Your task to perform on an android device: Open the map Image 0: 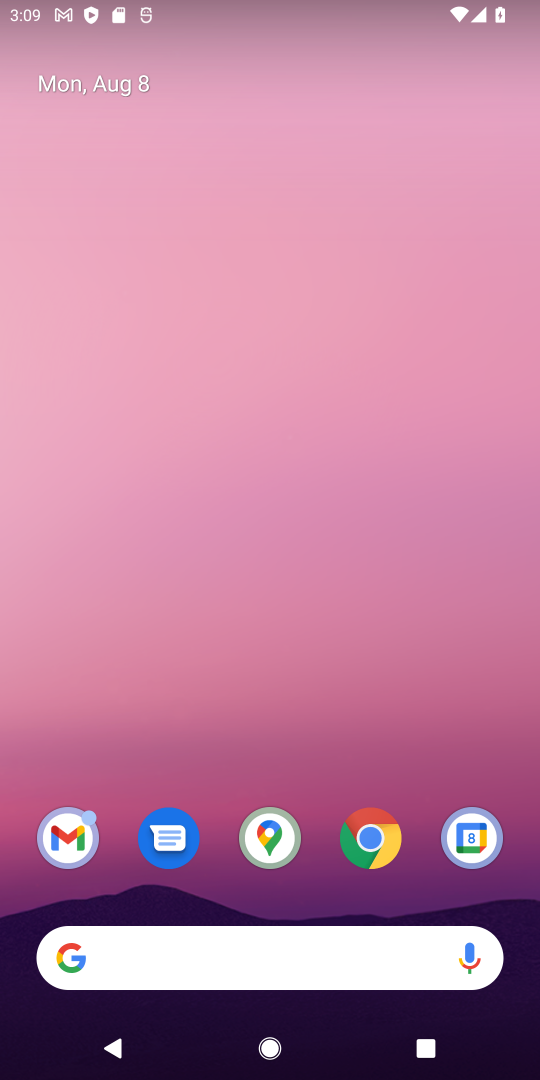
Step 0: click (269, 838)
Your task to perform on an android device: Open the map Image 1: 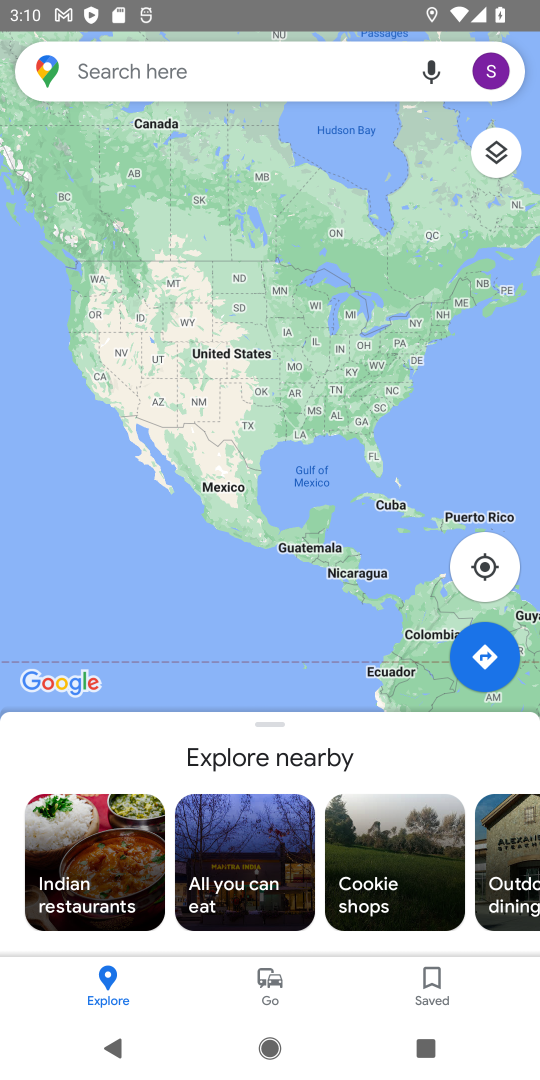
Step 1: task complete